Your task to perform on an android device: add a label to a message in the gmail app Image 0: 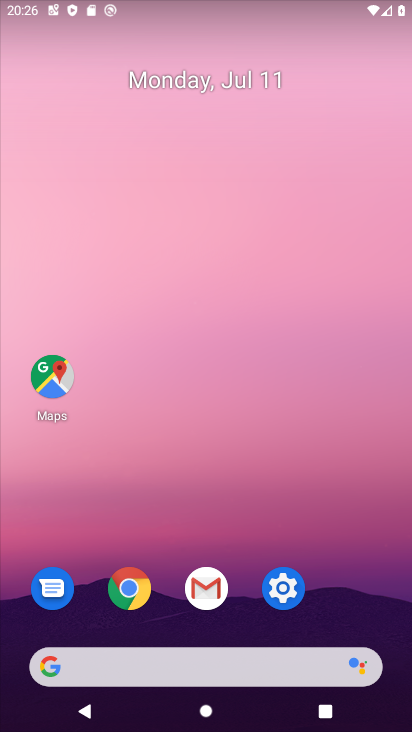
Step 0: click (196, 609)
Your task to perform on an android device: add a label to a message in the gmail app Image 1: 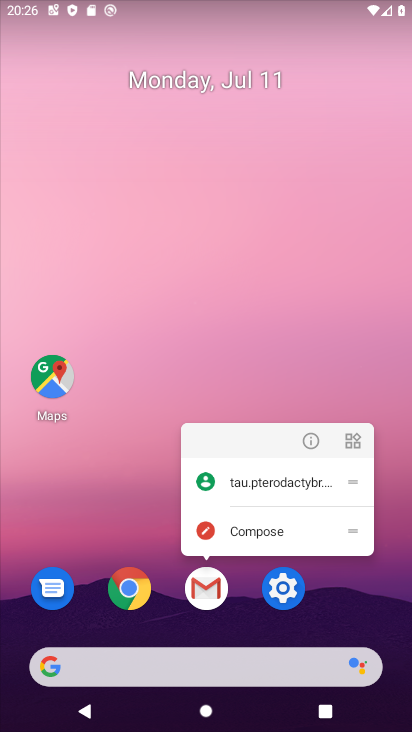
Step 1: click (193, 588)
Your task to perform on an android device: add a label to a message in the gmail app Image 2: 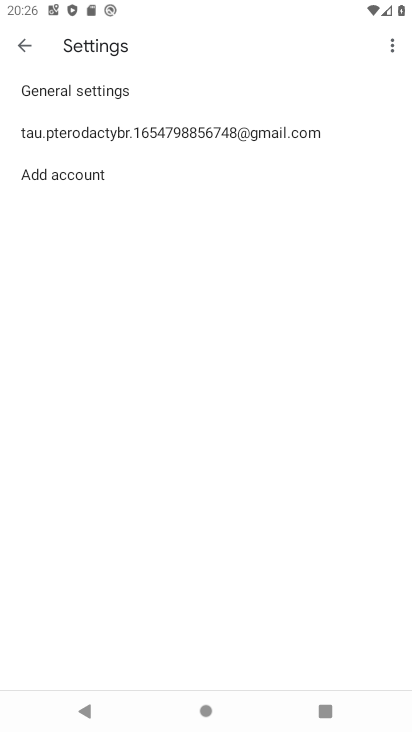
Step 2: click (116, 130)
Your task to perform on an android device: add a label to a message in the gmail app Image 3: 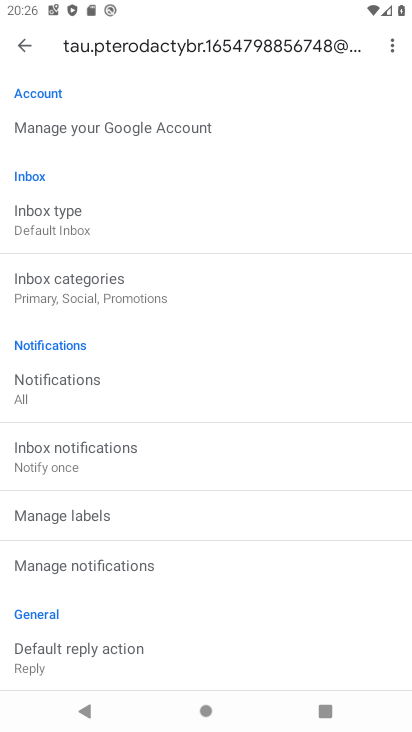
Step 3: click (103, 514)
Your task to perform on an android device: add a label to a message in the gmail app Image 4: 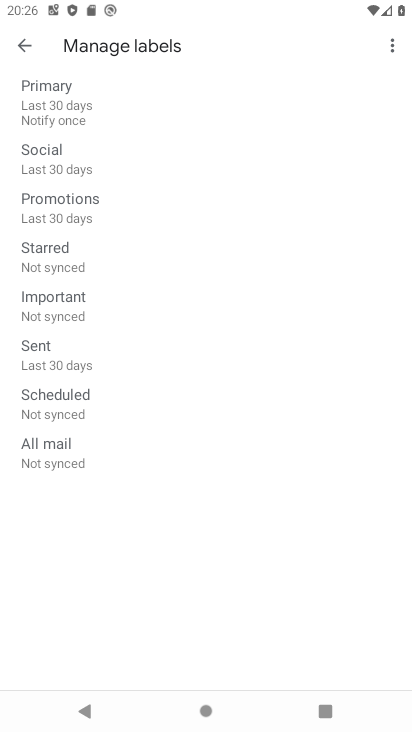
Step 4: click (138, 307)
Your task to perform on an android device: add a label to a message in the gmail app Image 5: 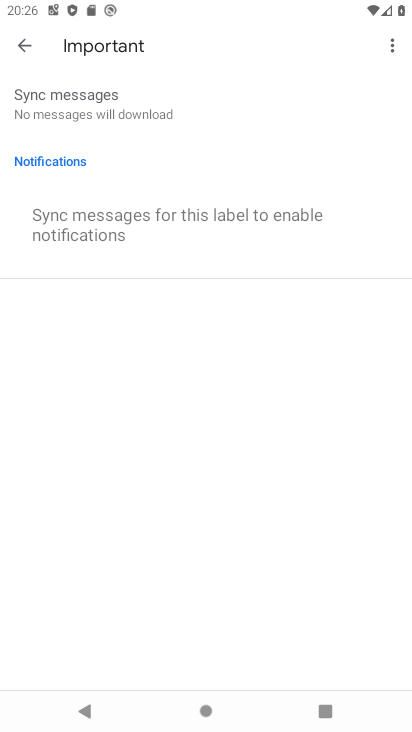
Step 5: click (27, 42)
Your task to perform on an android device: add a label to a message in the gmail app Image 6: 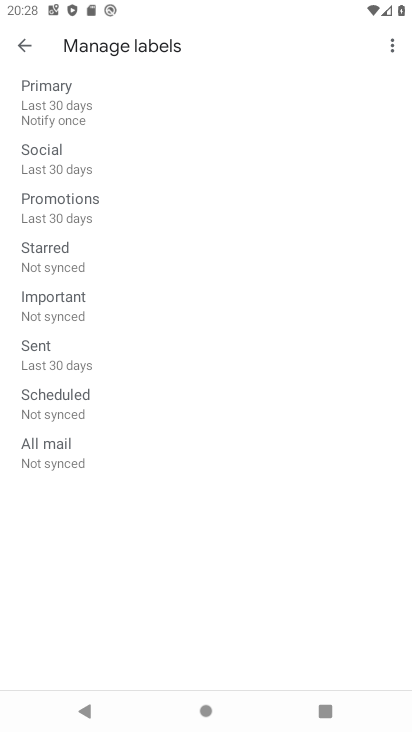
Step 6: task complete